Your task to perform on an android device: Add "duracell triple a" to the cart on ebay.com Image 0: 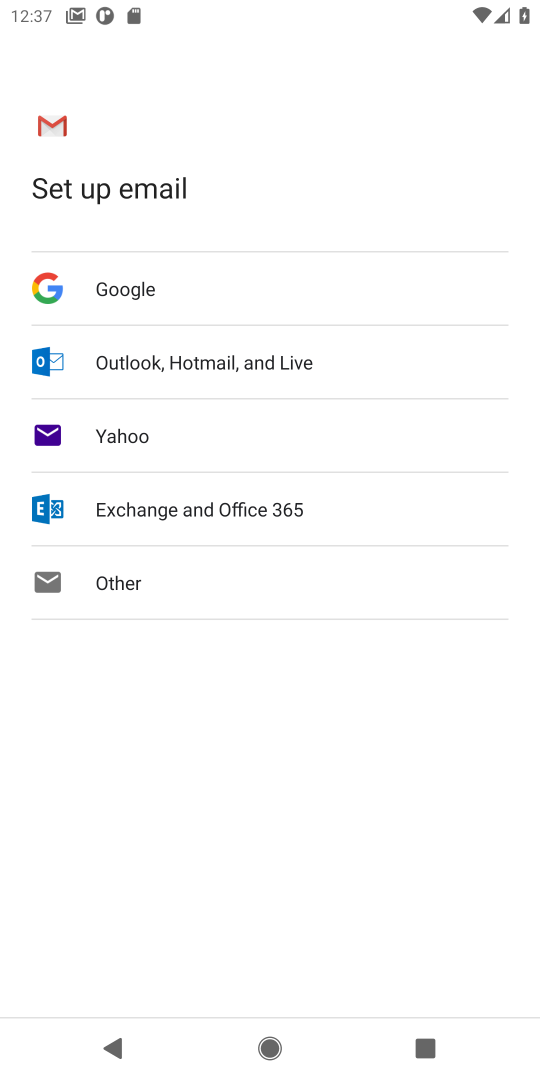
Step 0: press home button
Your task to perform on an android device: Add "duracell triple a" to the cart on ebay.com Image 1: 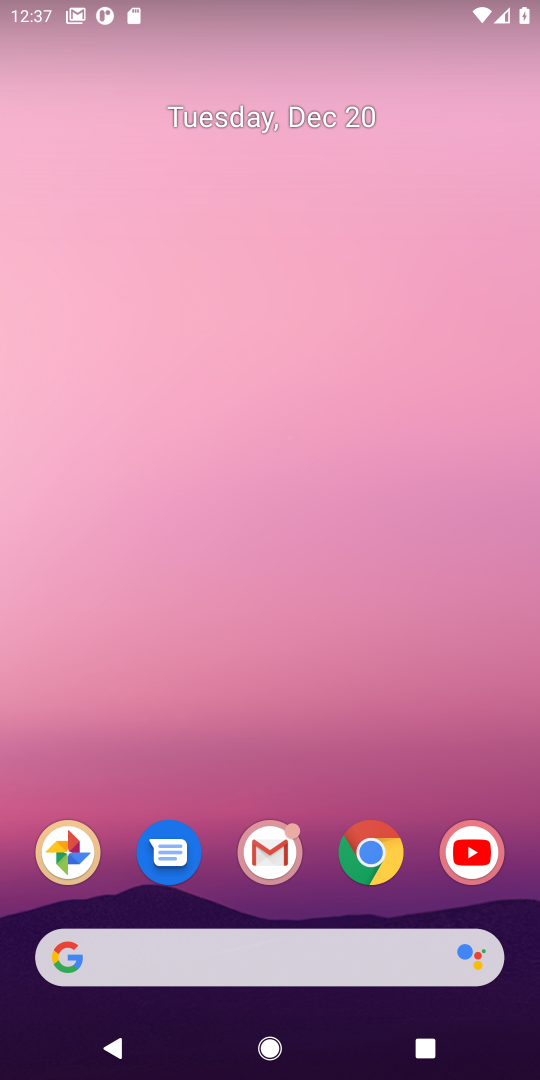
Step 1: click (377, 856)
Your task to perform on an android device: Add "duracell triple a" to the cart on ebay.com Image 2: 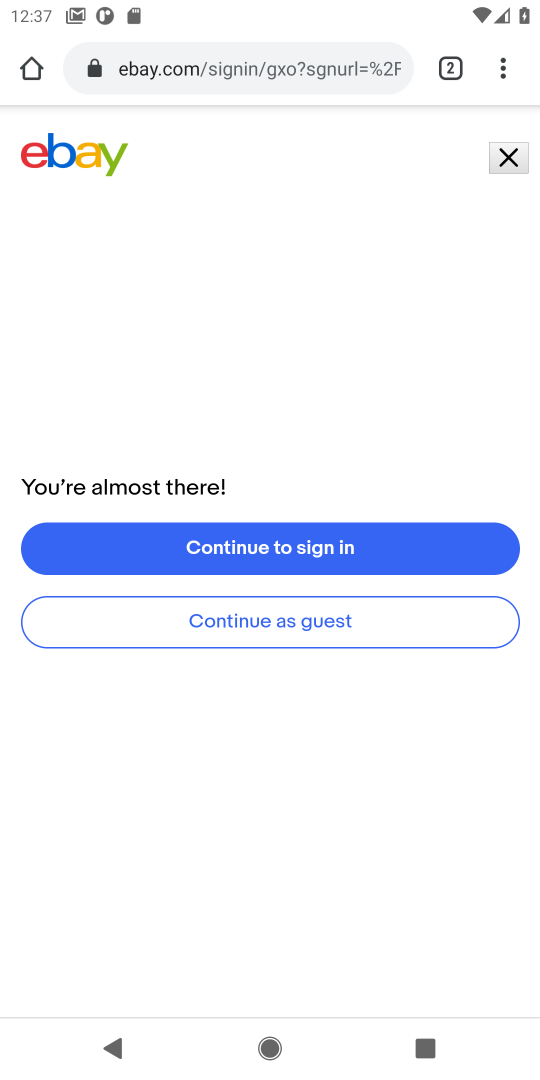
Step 2: click (510, 155)
Your task to perform on an android device: Add "duracell triple a" to the cart on ebay.com Image 3: 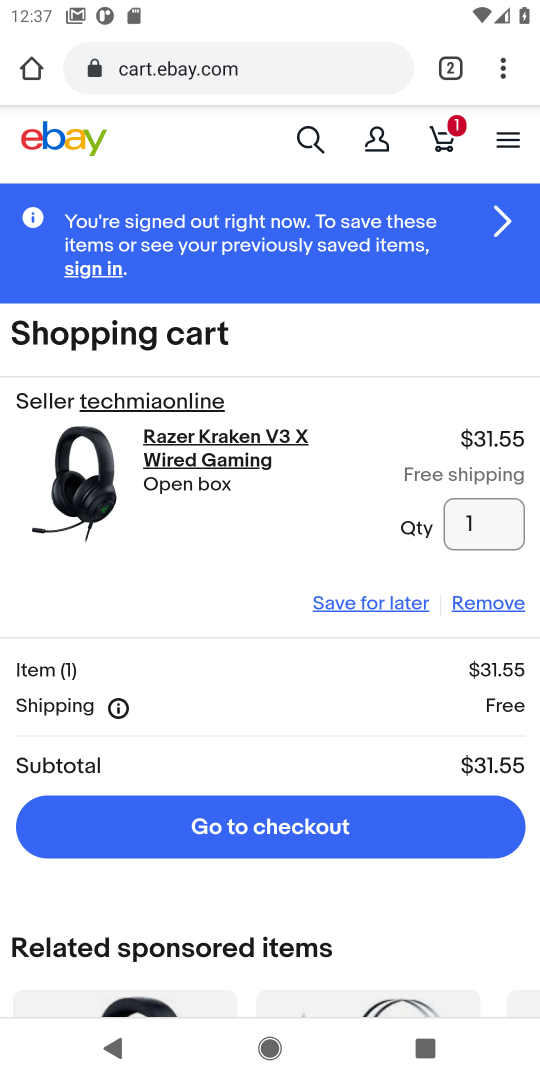
Step 3: click (307, 143)
Your task to perform on an android device: Add "duracell triple a" to the cart on ebay.com Image 4: 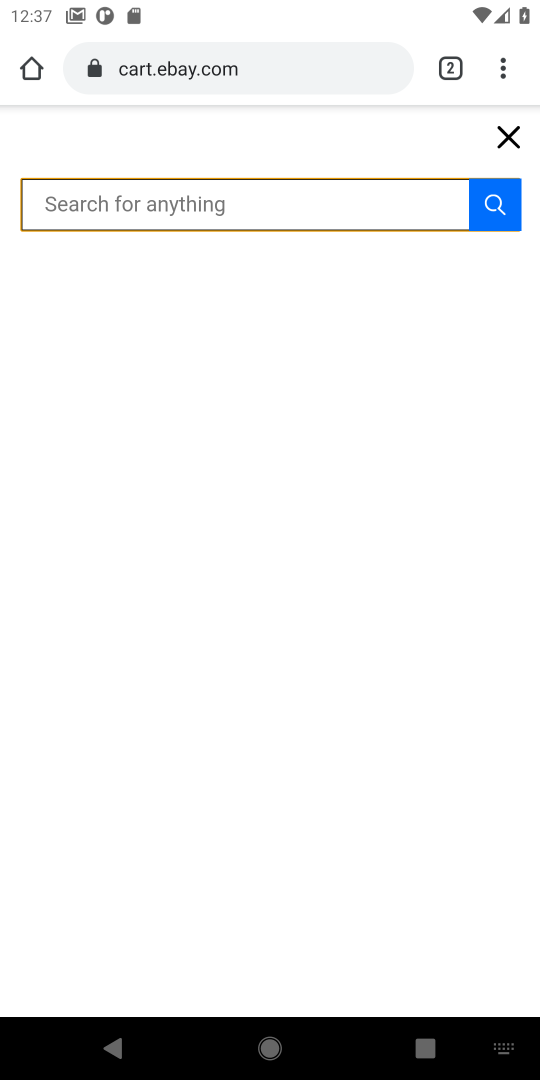
Step 4: type "duracell triple a"
Your task to perform on an android device: Add "duracell triple a" to the cart on ebay.com Image 5: 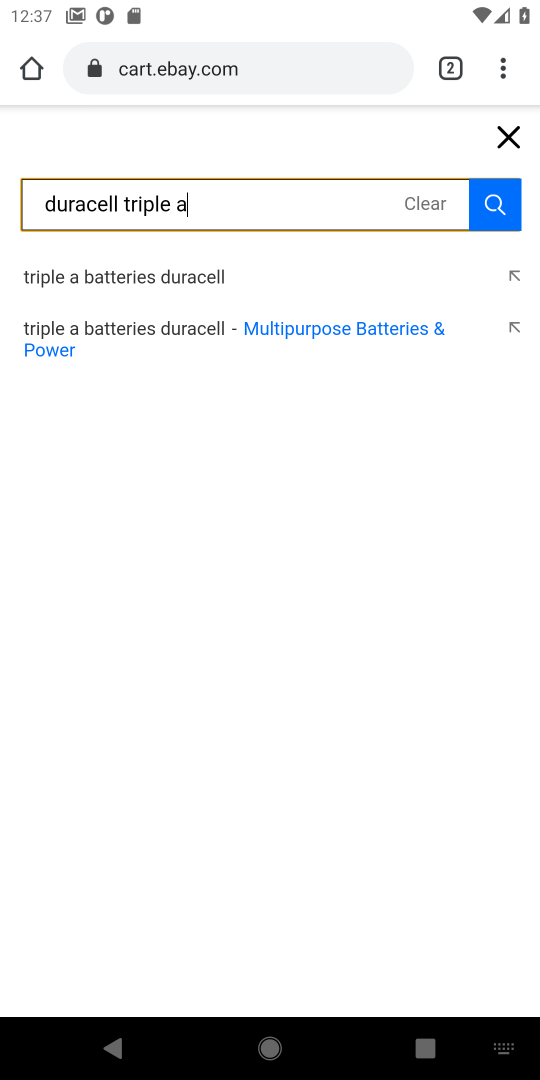
Step 5: click (501, 207)
Your task to perform on an android device: Add "duracell triple a" to the cart on ebay.com Image 6: 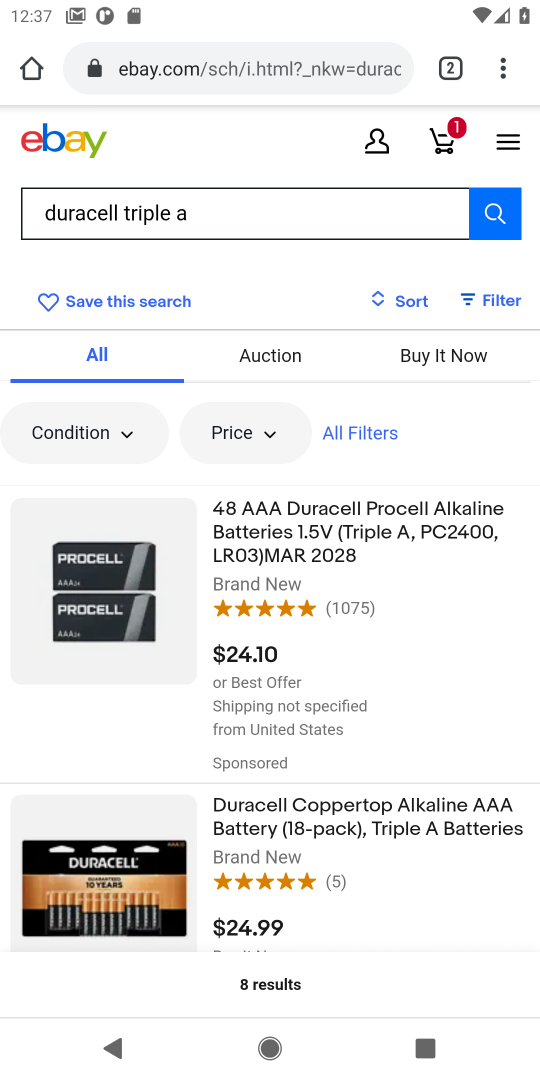
Step 6: click (264, 550)
Your task to perform on an android device: Add "duracell triple a" to the cart on ebay.com Image 7: 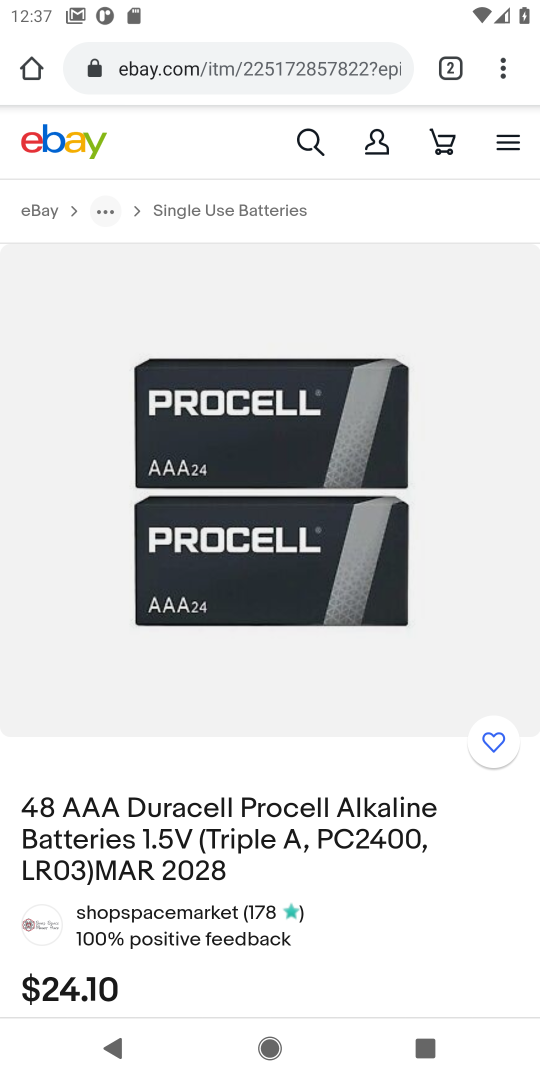
Step 7: drag from (283, 819) to (313, 447)
Your task to perform on an android device: Add "duracell triple a" to the cart on ebay.com Image 8: 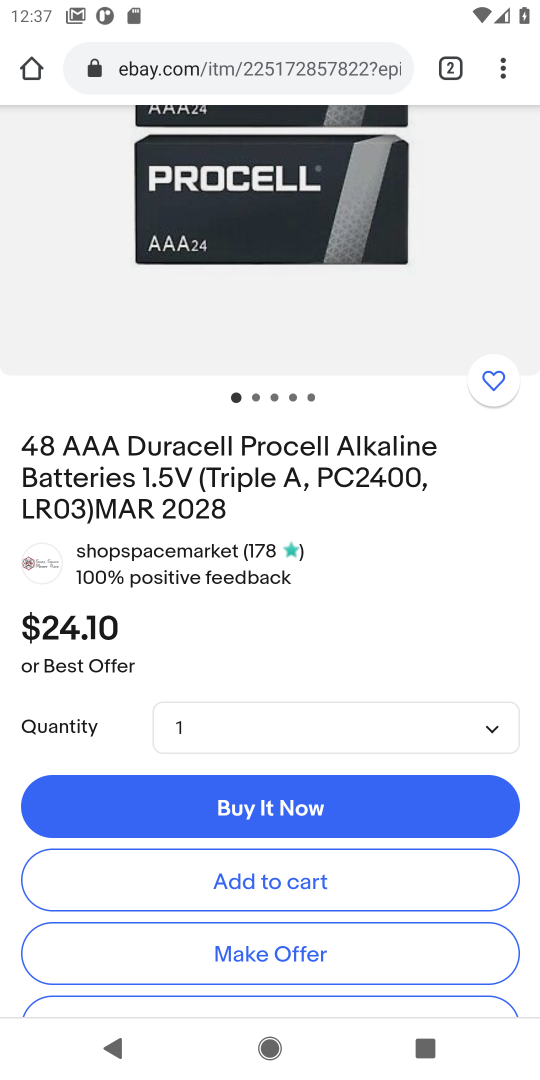
Step 8: click (255, 878)
Your task to perform on an android device: Add "duracell triple a" to the cart on ebay.com Image 9: 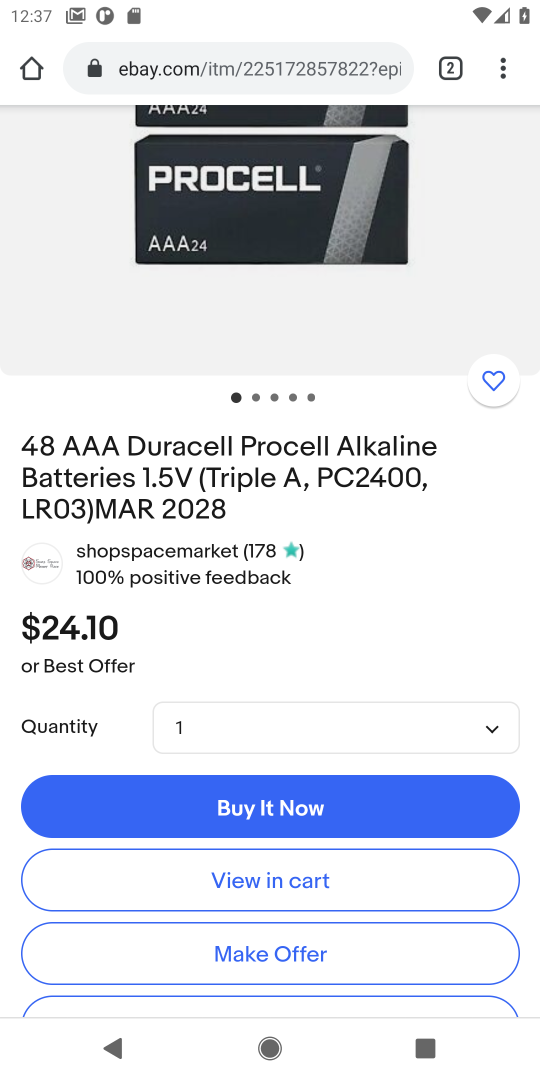
Step 9: task complete